Your task to perform on an android device: What's the weather today? Image 0: 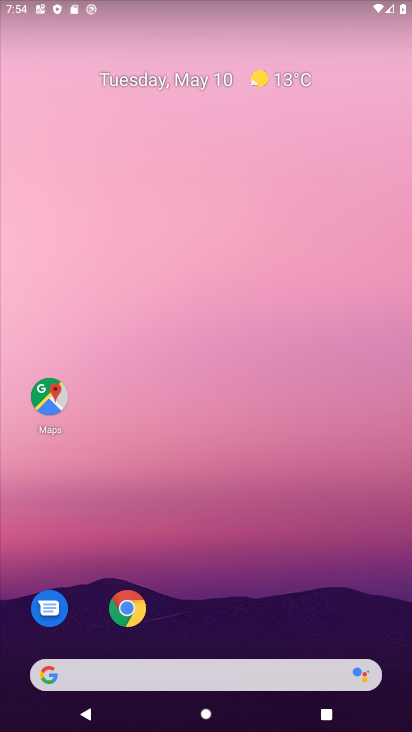
Step 0: drag from (235, 607) to (261, 1)
Your task to perform on an android device: What's the weather today? Image 1: 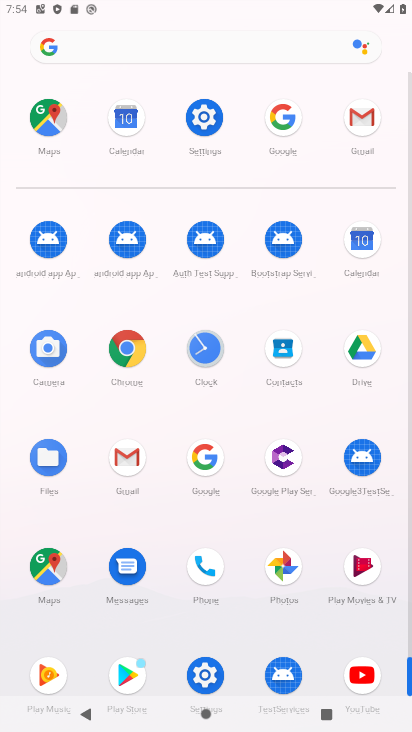
Step 1: drag from (260, 534) to (238, 298)
Your task to perform on an android device: What's the weather today? Image 2: 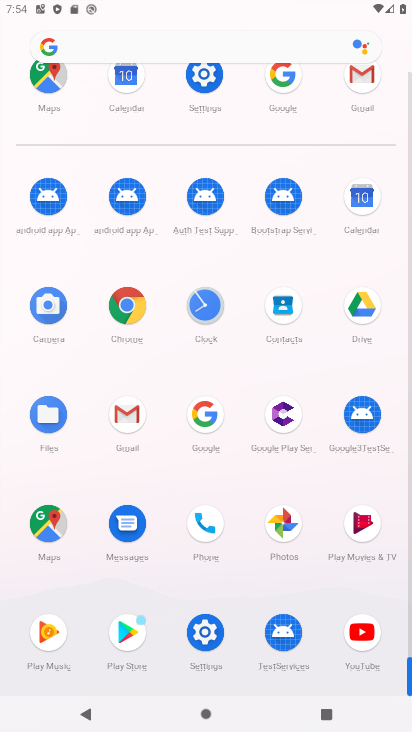
Step 2: click (205, 432)
Your task to perform on an android device: What's the weather today? Image 3: 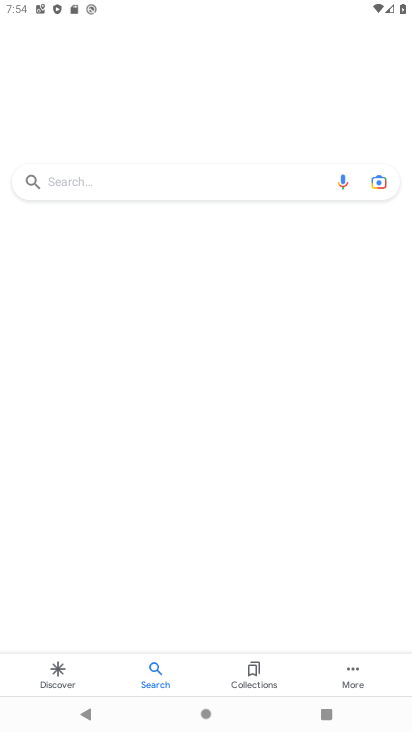
Step 3: click (109, 187)
Your task to perform on an android device: What's the weather today? Image 4: 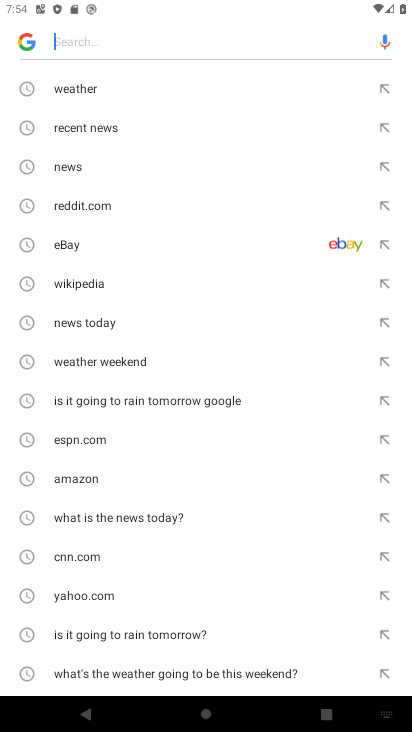
Step 4: click (66, 89)
Your task to perform on an android device: What's the weather today? Image 5: 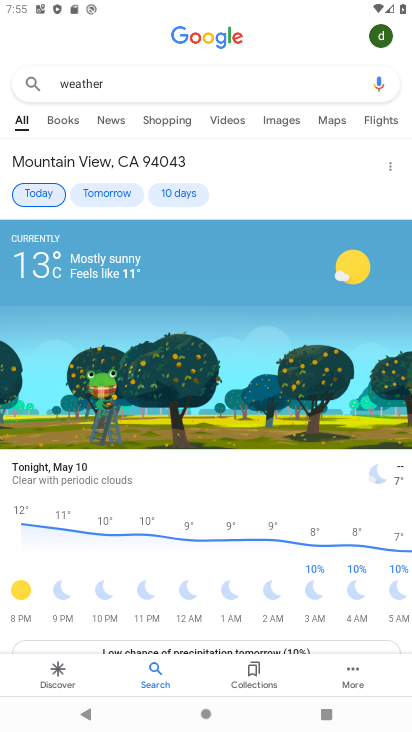
Step 5: task complete